Your task to perform on an android device: Open Google Chrome and click the shortcut for Amazon.com Image 0: 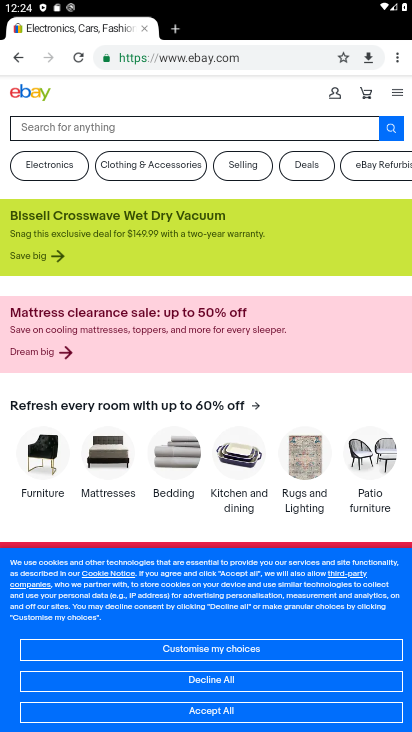
Step 0: click (175, 24)
Your task to perform on an android device: Open Google Chrome and click the shortcut for Amazon.com Image 1: 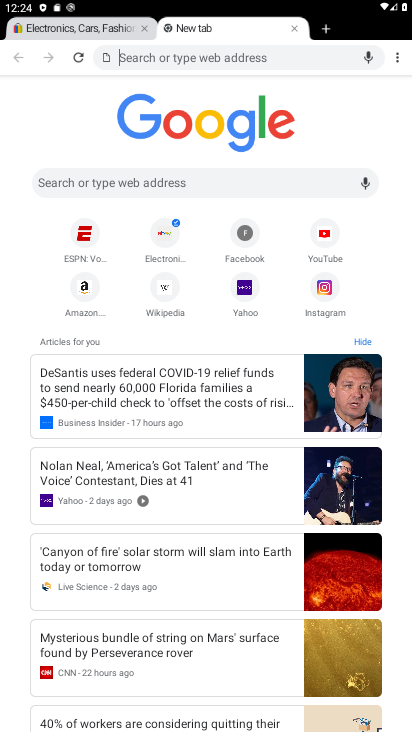
Step 1: click (85, 286)
Your task to perform on an android device: Open Google Chrome and click the shortcut for Amazon.com Image 2: 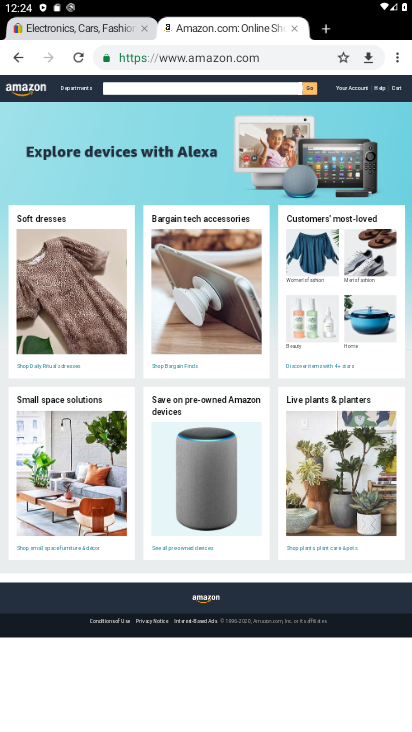
Step 2: task complete